Your task to perform on an android device: Open settings Image 0: 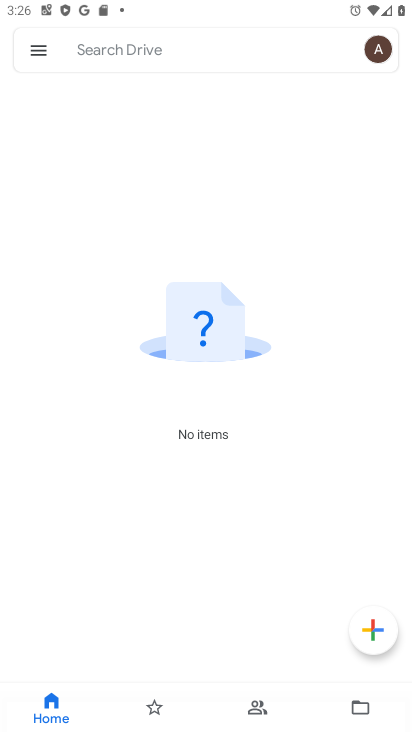
Step 0: press home button
Your task to perform on an android device: Open settings Image 1: 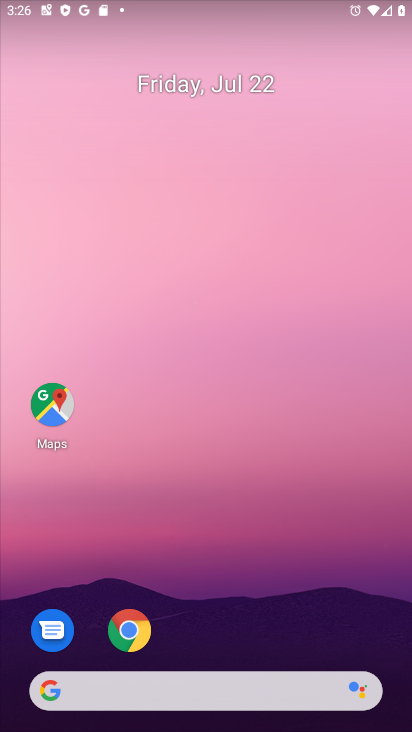
Step 1: drag from (221, 689) to (113, 400)
Your task to perform on an android device: Open settings Image 2: 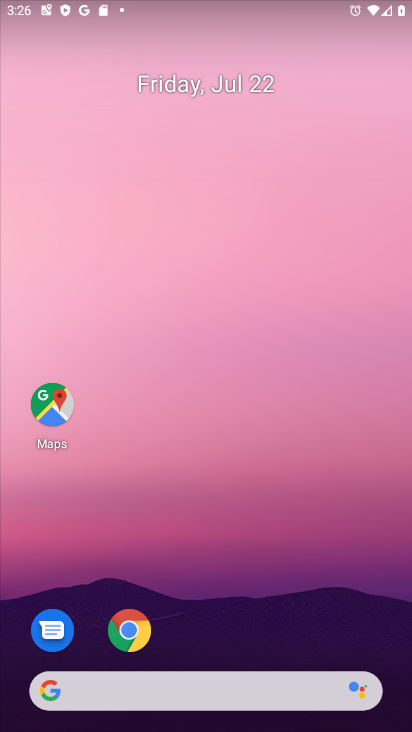
Step 2: drag from (173, 309) to (151, 146)
Your task to perform on an android device: Open settings Image 3: 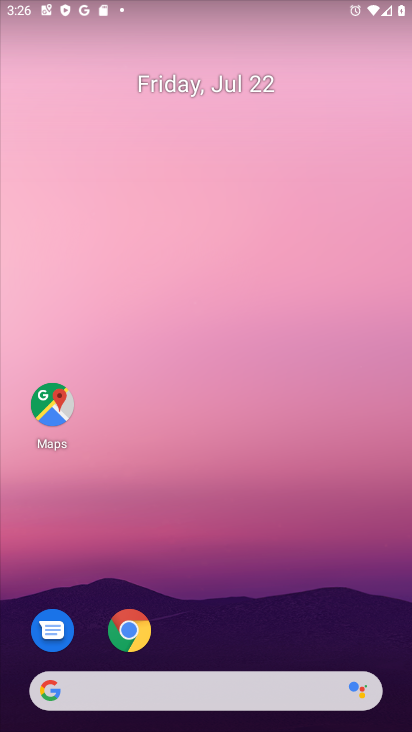
Step 3: drag from (206, 674) to (137, 35)
Your task to perform on an android device: Open settings Image 4: 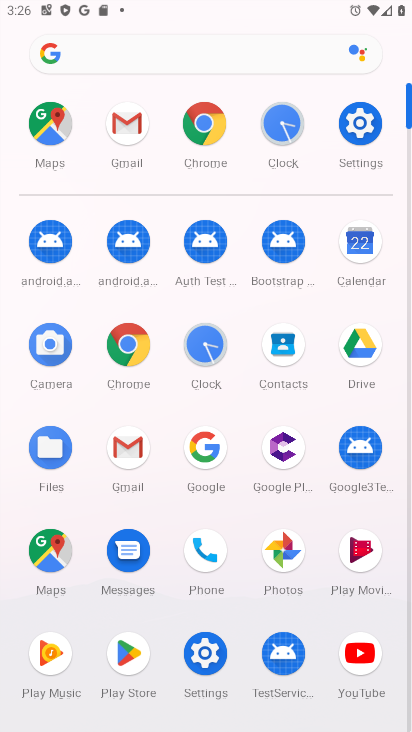
Step 4: click (357, 127)
Your task to perform on an android device: Open settings Image 5: 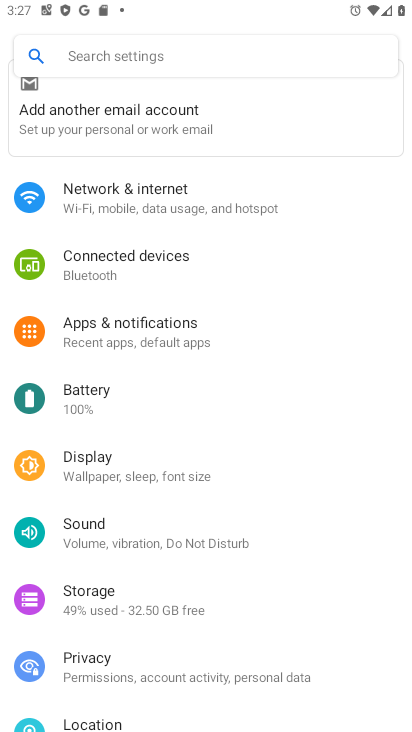
Step 5: task complete